Your task to perform on an android device: Search for 'The Girl on the Train' on Goodreads. Image 0: 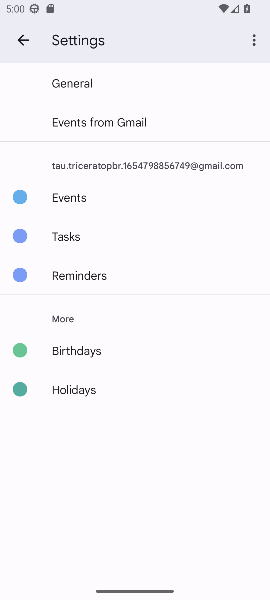
Step 0: press home button
Your task to perform on an android device: Search for 'The Girl on the Train' on Goodreads. Image 1: 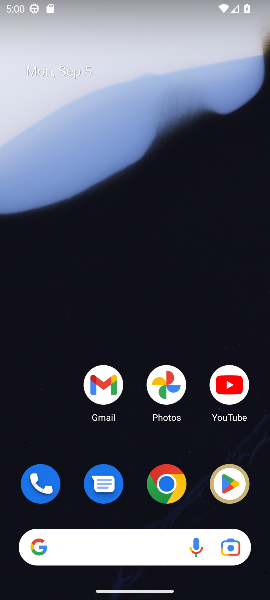
Step 1: click (171, 481)
Your task to perform on an android device: Search for 'The Girl on the Train' on Goodreads. Image 2: 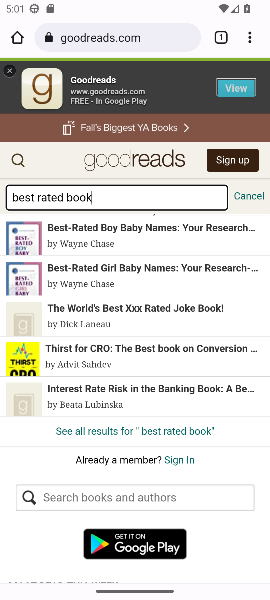
Step 2: click (17, 158)
Your task to perform on an android device: Search for 'The Girl on the Train' on Goodreads. Image 3: 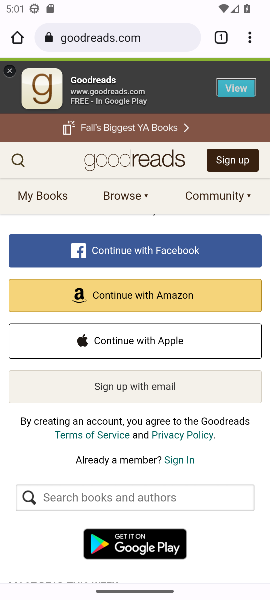
Step 3: click (17, 158)
Your task to perform on an android device: Search for 'The Girl on the Train' on Goodreads. Image 4: 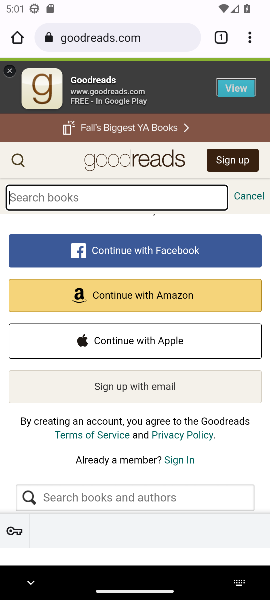
Step 4: type "The Girl on the Train"
Your task to perform on an android device: Search for 'The Girl on the Train' on Goodreads. Image 5: 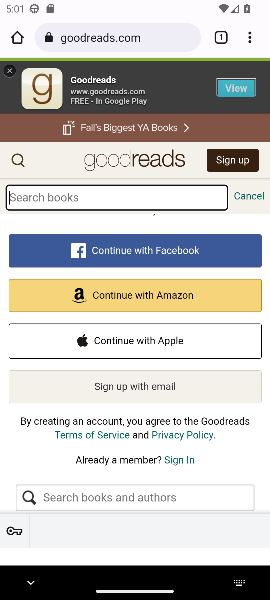
Step 5: press enter
Your task to perform on an android device: Search for 'The Girl on the Train' on Goodreads. Image 6: 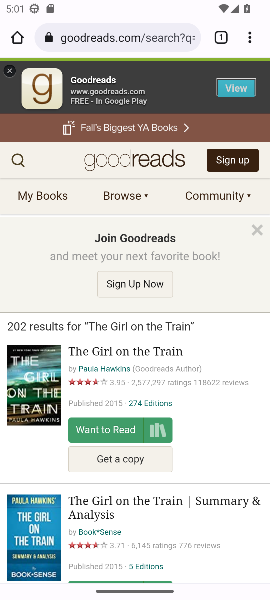
Step 6: task complete